Your task to perform on an android device: allow notifications from all sites in the chrome app Image 0: 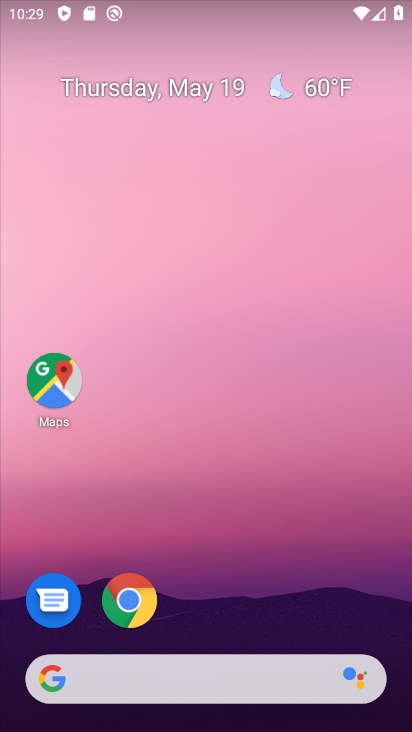
Step 0: drag from (366, 622) to (379, 158)
Your task to perform on an android device: allow notifications from all sites in the chrome app Image 1: 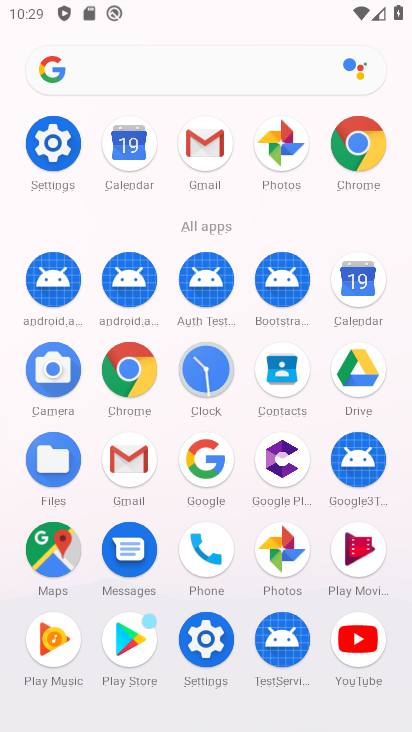
Step 1: click (140, 385)
Your task to perform on an android device: allow notifications from all sites in the chrome app Image 2: 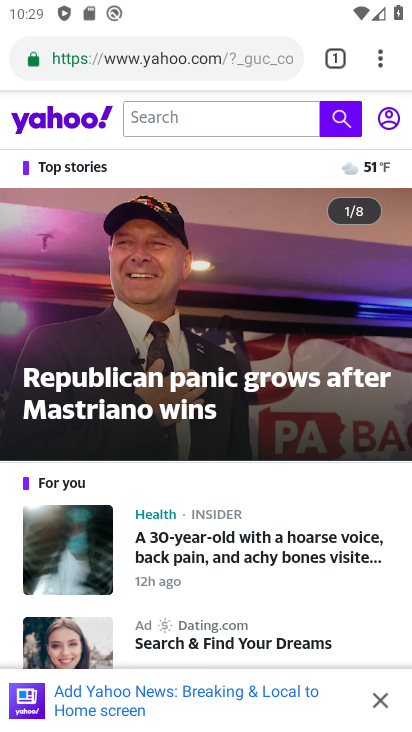
Step 2: click (377, 59)
Your task to perform on an android device: allow notifications from all sites in the chrome app Image 3: 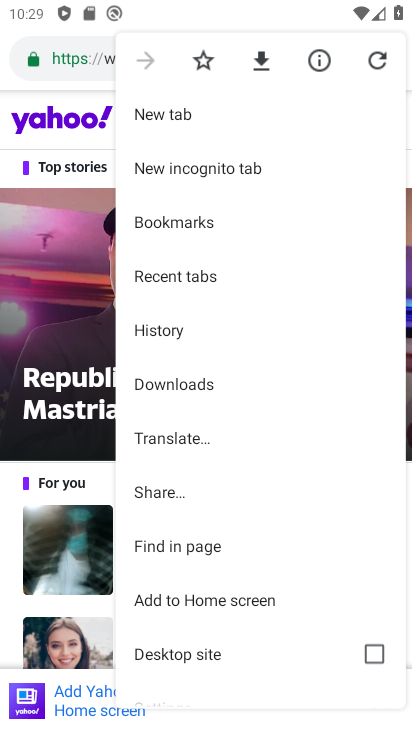
Step 3: drag from (284, 524) to (280, 417)
Your task to perform on an android device: allow notifications from all sites in the chrome app Image 4: 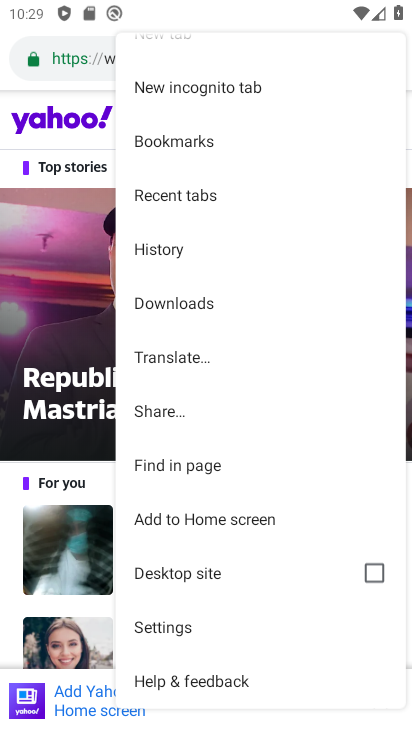
Step 4: drag from (293, 609) to (299, 440)
Your task to perform on an android device: allow notifications from all sites in the chrome app Image 5: 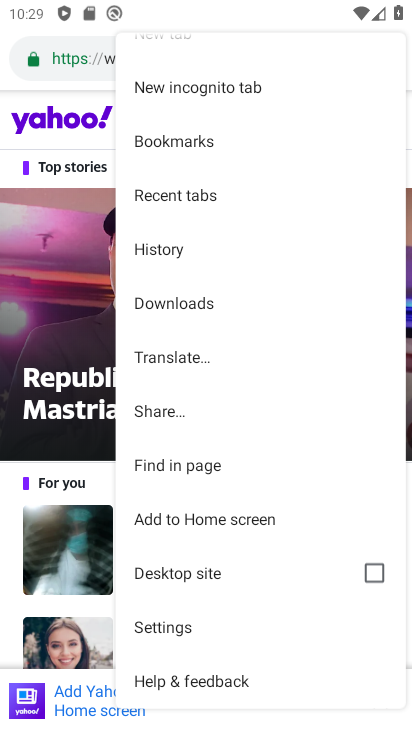
Step 5: click (163, 623)
Your task to perform on an android device: allow notifications from all sites in the chrome app Image 6: 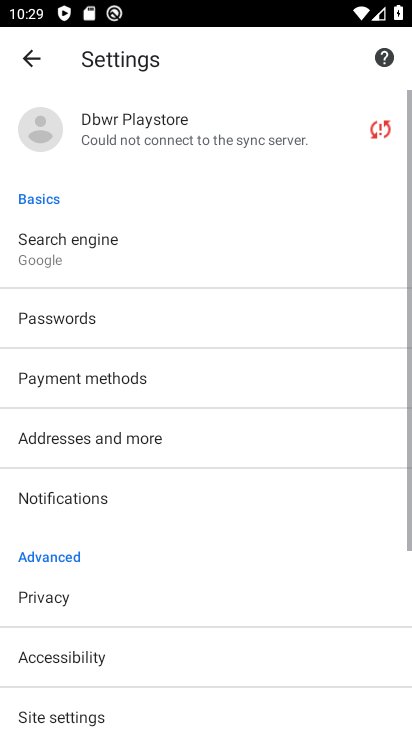
Step 6: drag from (276, 588) to (292, 500)
Your task to perform on an android device: allow notifications from all sites in the chrome app Image 7: 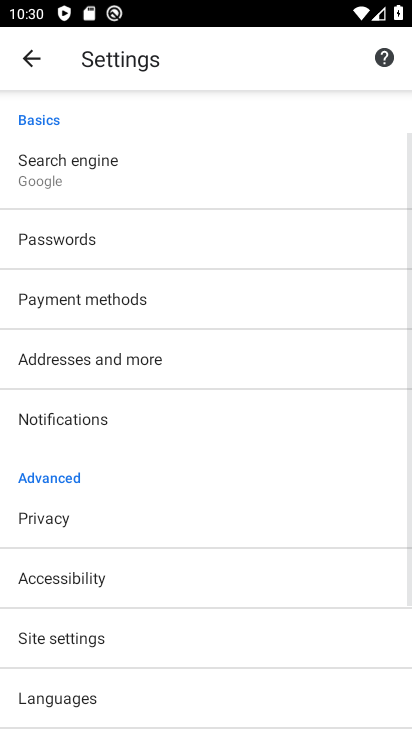
Step 7: drag from (299, 653) to (306, 556)
Your task to perform on an android device: allow notifications from all sites in the chrome app Image 8: 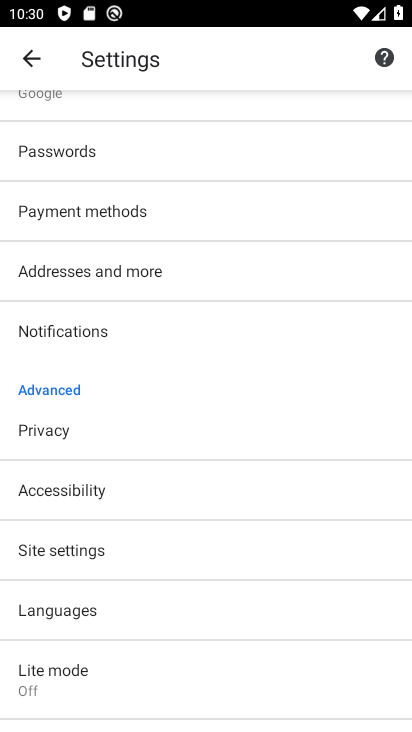
Step 8: drag from (294, 652) to (303, 538)
Your task to perform on an android device: allow notifications from all sites in the chrome app Image 9: 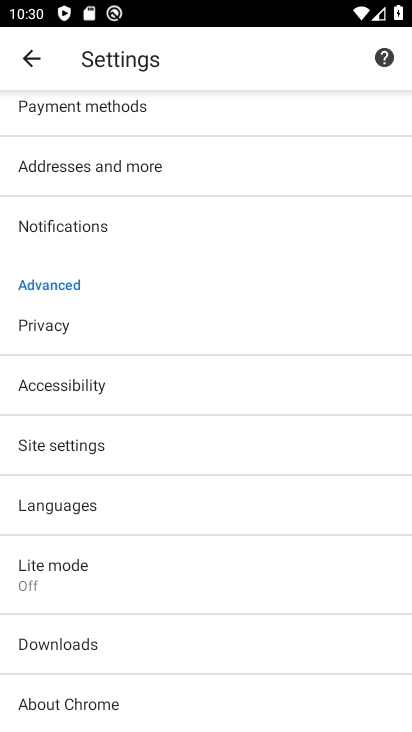
Step 9: click (274, 465)
Your task to perform on an android device: allow notifications from all sites in the chrome app Image 10: 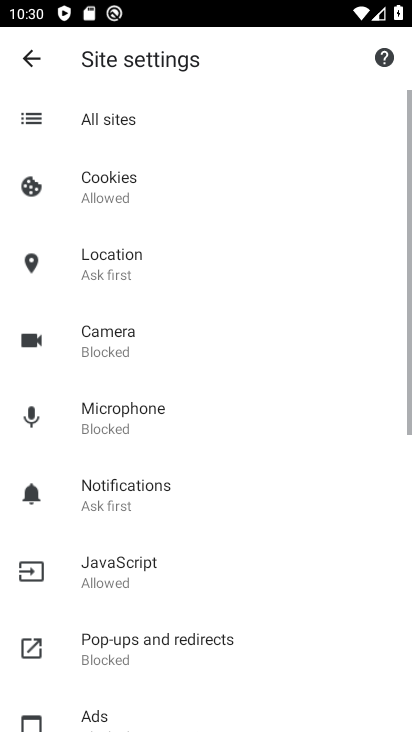
Step 10: drag from (263, 588) to (273, 507)
Your task to perform on an android device: allow notifications from all sites in the chrome app Image 11: 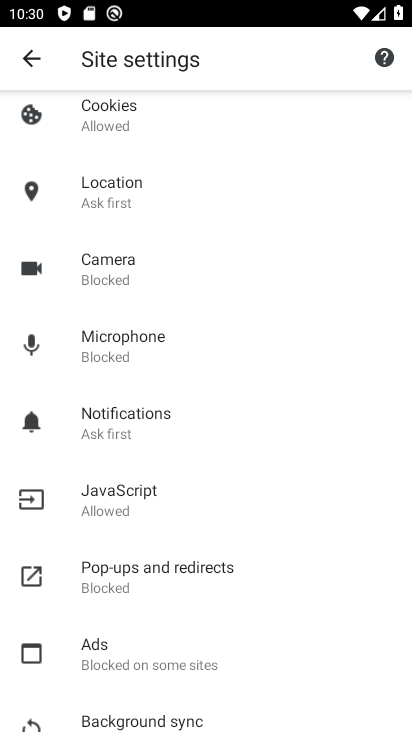
Step 11: drag from (294, 638) to (301, 537)
Your task to perform on an android device: allow notifications from all sites in the chrome app Image 12: 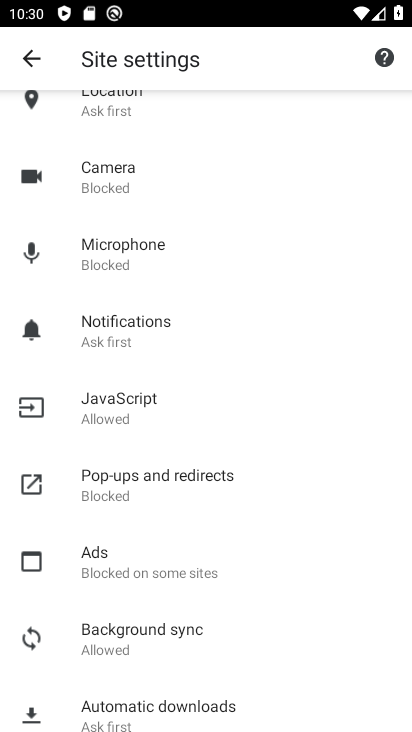
Step 12: drag from (302, 648) to (311, 531)
Your task to perform on an android device: allow notifications from all sites in the chrome app Image 13: 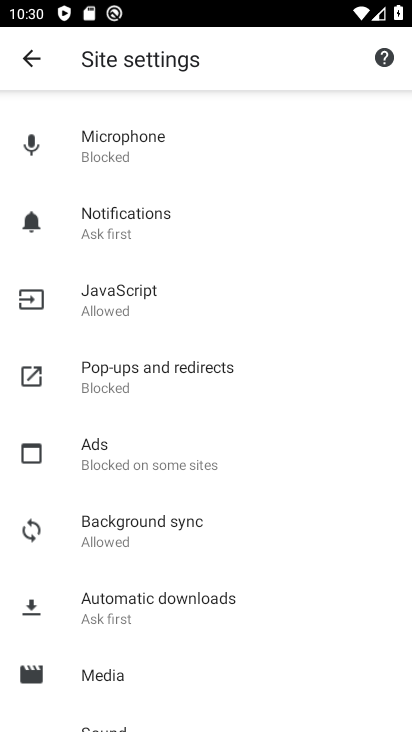
Step 13: click (171, 222)
Your task to perform on an android device: allow notifications from all sites in the chrome app Image 14: 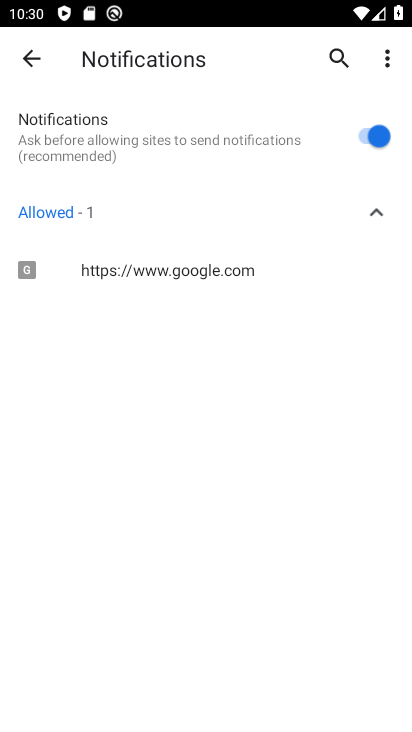
Step 14: task complete